Your task to perform on an android device: turn off wifi Image 0: 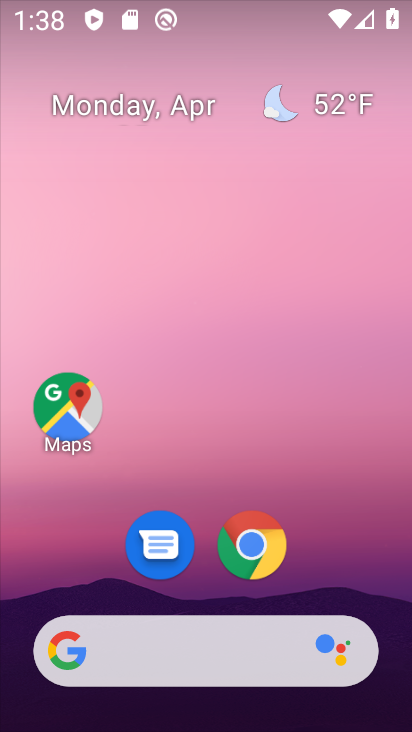
Step 0: drag from (200, 717) to (210, 209)
Your task to perform on an android device: turn off wifi Image 1: 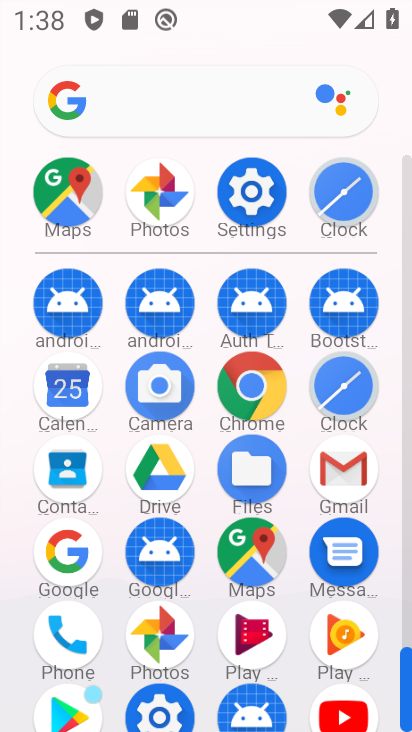
Step 1: click (260, 183)
Your task to perform on an android device: turn off wifi Image 2: 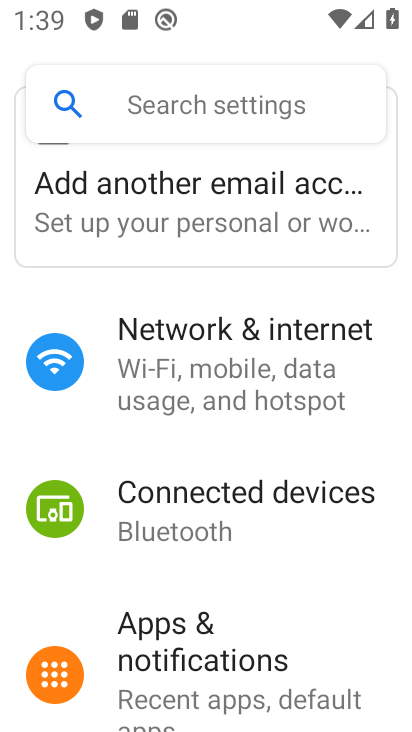
Step 2: click (190, 364)
Your task to perform on an android device: turn off wifi Image 3: 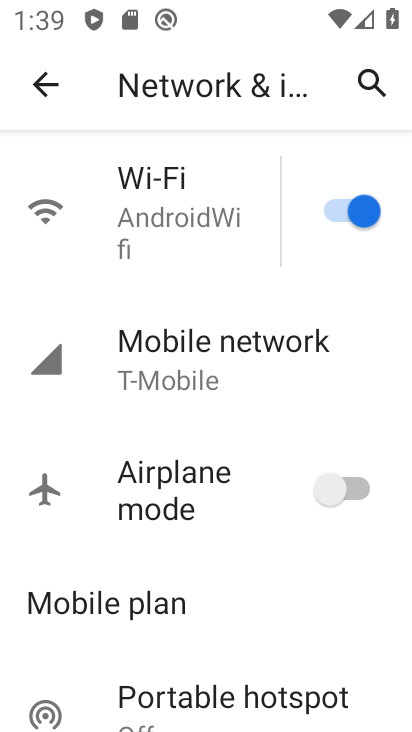
Step 3: click (325, 212)
Your task to perform on an android device: turn off wifi Image 4: 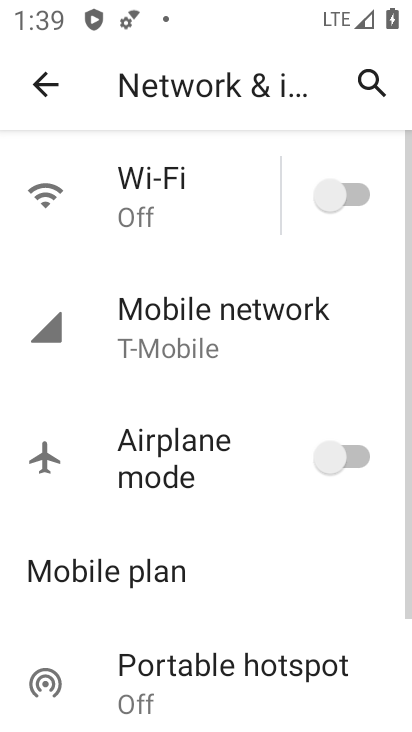
Step 4: task complete